Your task to perform on an android device: toggle javascript in the chrome app Image 0: 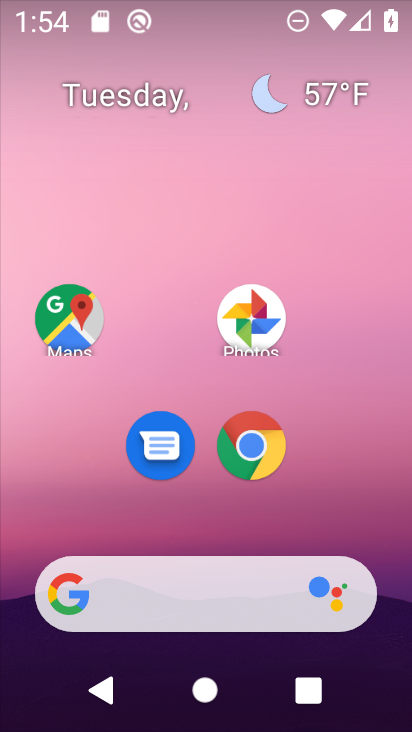
Step 0: drag from (370, 557) to (366, 304)
Your task to perform on an android device: toggle javascript in the chrome app Image 1: 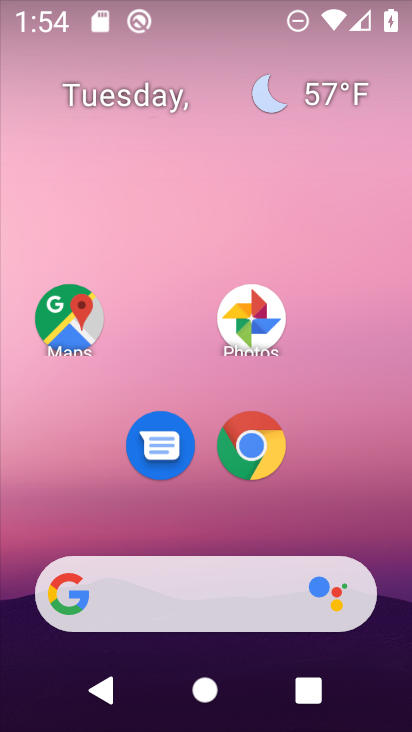
Step 1: drag from (388, 544) to (398, 290)
Your task to perform on an android device: toggle javascript in the chrome app Image 2: 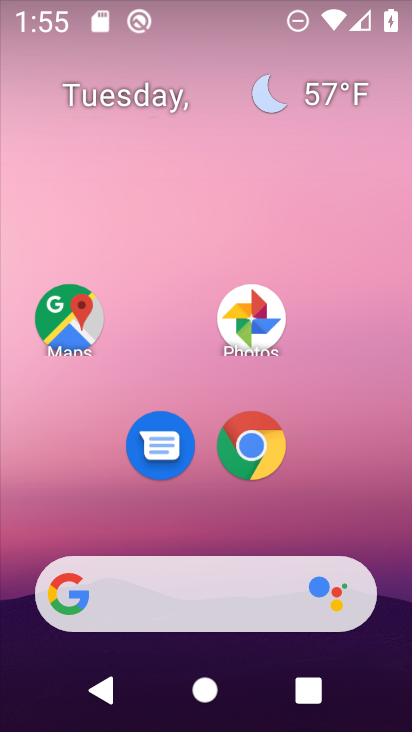
Step 2: drag from (395, 546) to (377, 307)
Your task to perform on an android device: toggle javascript in the chrome app Image 3: 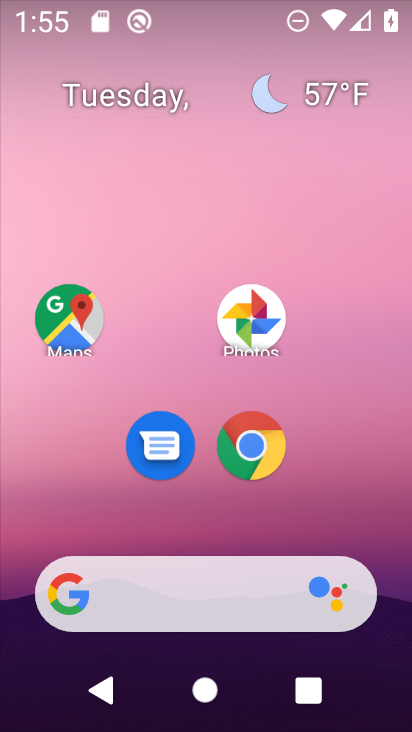
Step 3: drag from (384, 508) to (365, 189)
Your task to perform on an android device: toggle javascript in the chrome app Image 4: 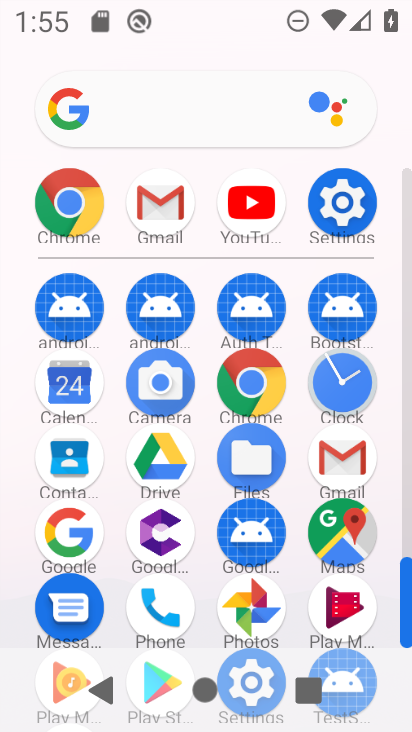
Step 4: click (271, 392)
Your task to perform on an android device: toggle javascript in the chrome app Image 5: 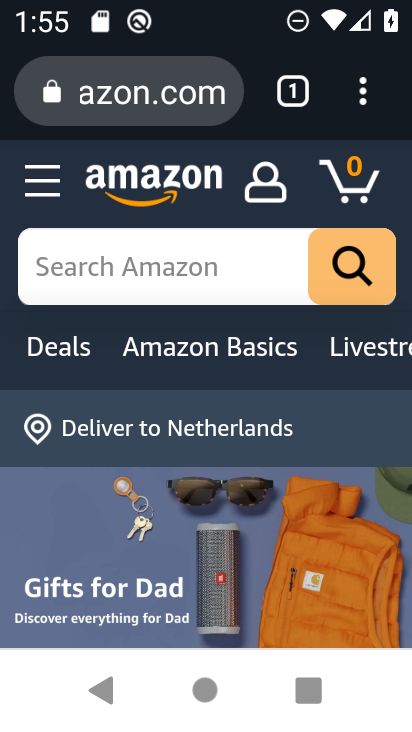
Step 5: click (366, 102)
Your task to perform on an android device: toggle javascript in the chrome app Image 6: 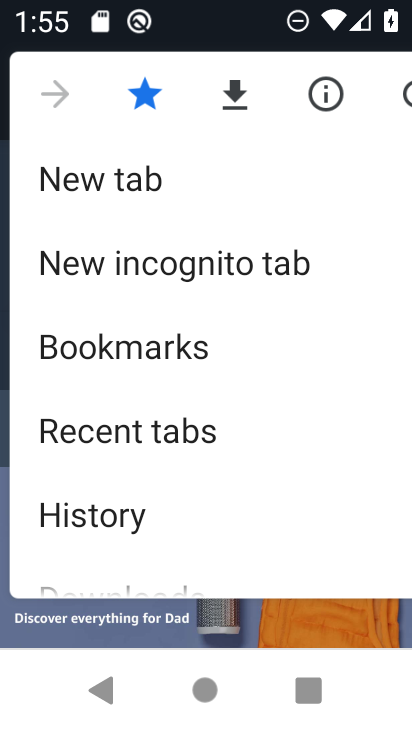
Step 6: drag from (336, 486) to (341, 365)
Your task to perform on an android device: toggle javascript in the chrome app Image 7: 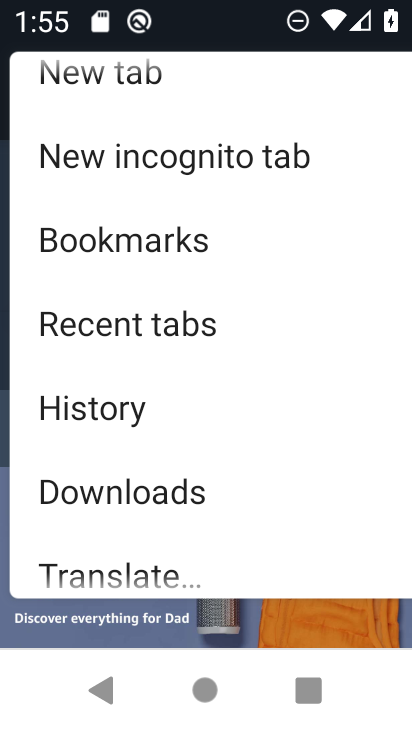
Step 7: drag from (317, 528) to (310, 415)
Your task to perform on an android device: toggle javascript in the chrome app Image 8: 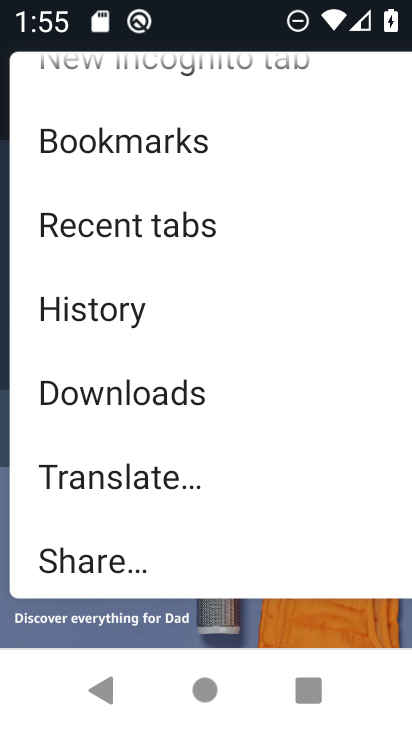
Step 8: drag from (314, 537) to (324, 403)
Your task to perform on an android device: toggle javascript in the chrome app Image 9: 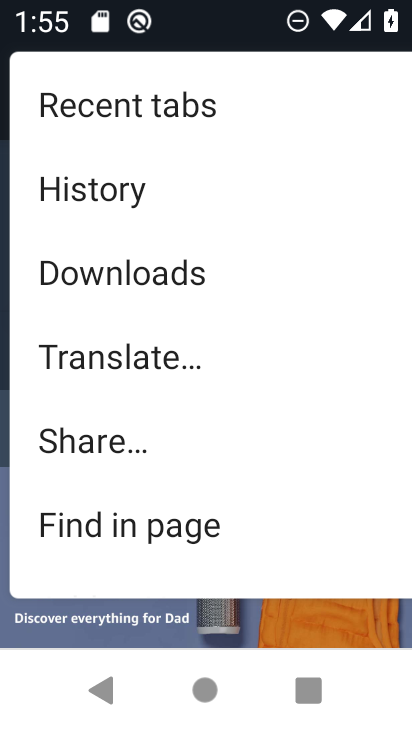
Step 9: drag from (304, 527) to (309, 346)
Your task to perform on an android device: toggle javascript in the chrome app Image 10: 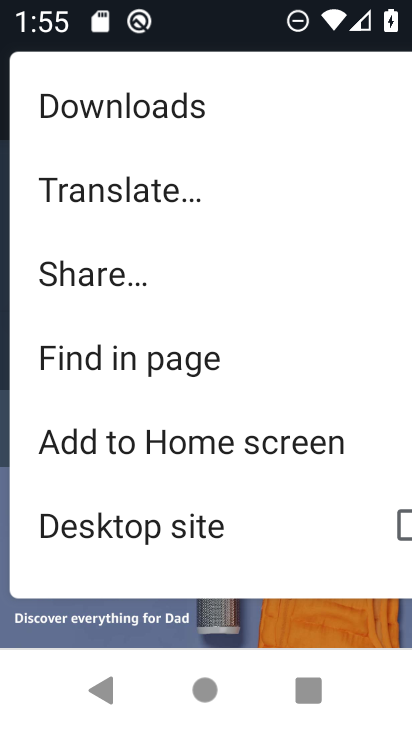
Step 10: drag from (311, 549) to (317, 380)
Your task to perform on an android device: toggle javascript in the chrome app Image 11: 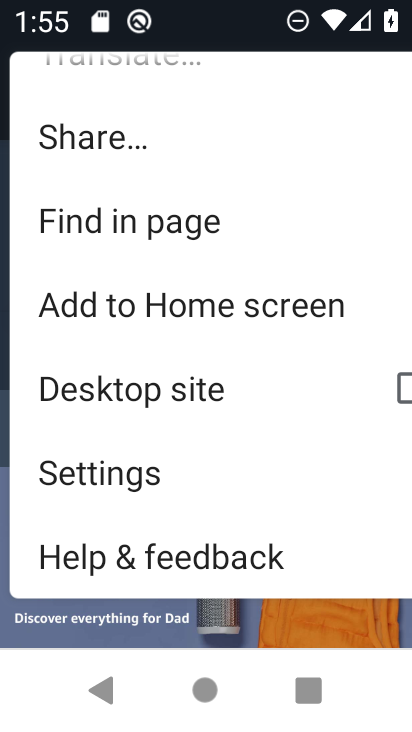
Step 11: click (158, 482)
Your task to perform on an android device: toggle javascript in the chrome app Image 12: 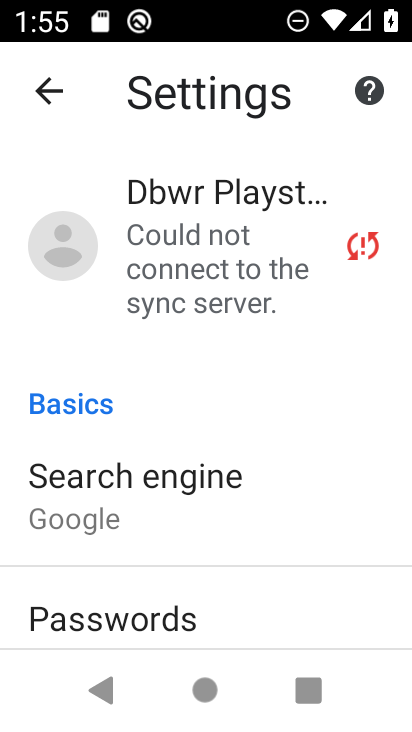
Step 12: drag from (337, 591) to (346, 461)
Your task to perform on an android device: toggle javascript in the chrome app Image 13: 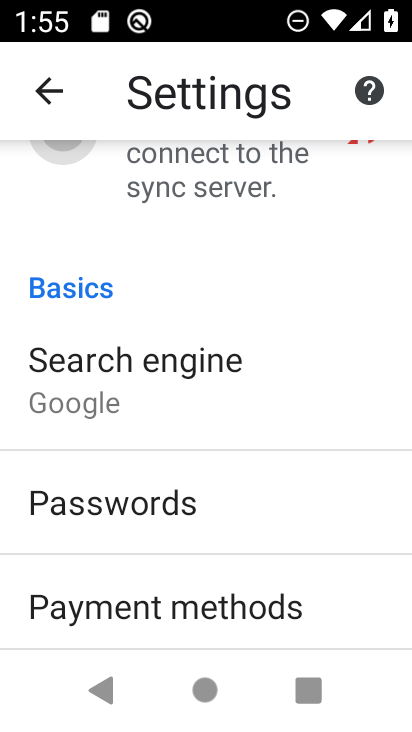
Step 13: drag from (341, 550) to (345, 433)
Your task to perform on an android device: toggle javascript in the chrome app Image 14: 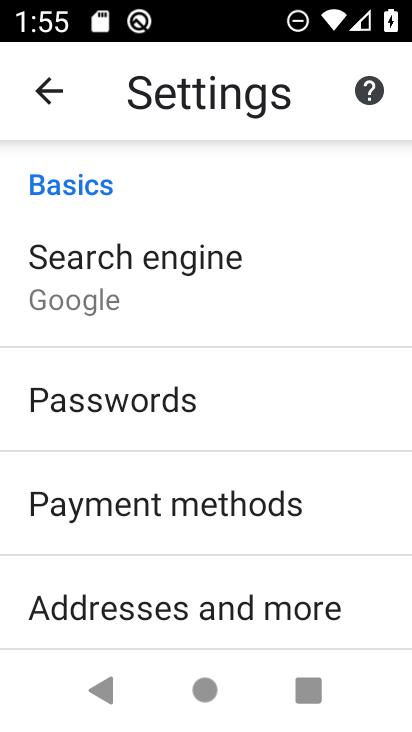
Step 14: drag from (350, 589) to (354, 487)
Your task to perform on an android device: toggle javascript in the chrome app Image 15: 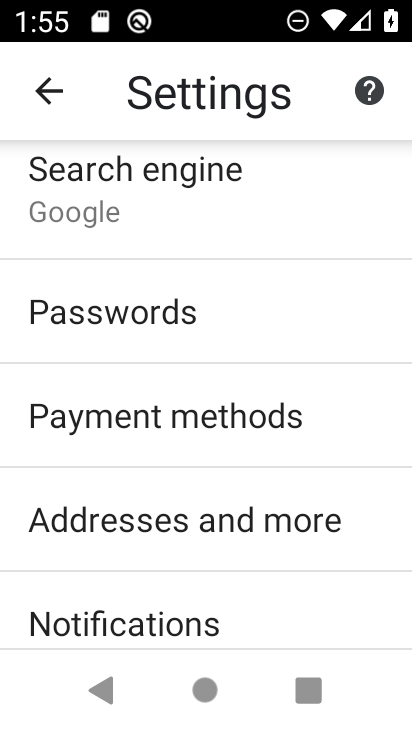
Step 15: drag from (362, 608) to (365, 457)
Your task to perform on an android device: toggle javascript in the chrome app Image 16: 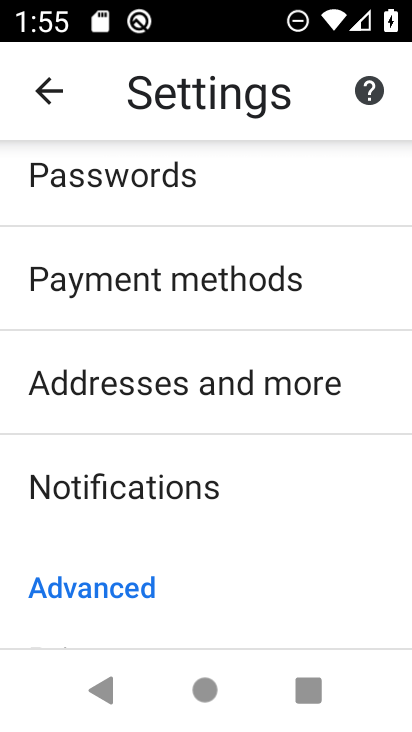
Step 16: drag from (365, 590) to (369, 452)
Your task to perform on an android device: toggle javascript in the chrome app Image 17: 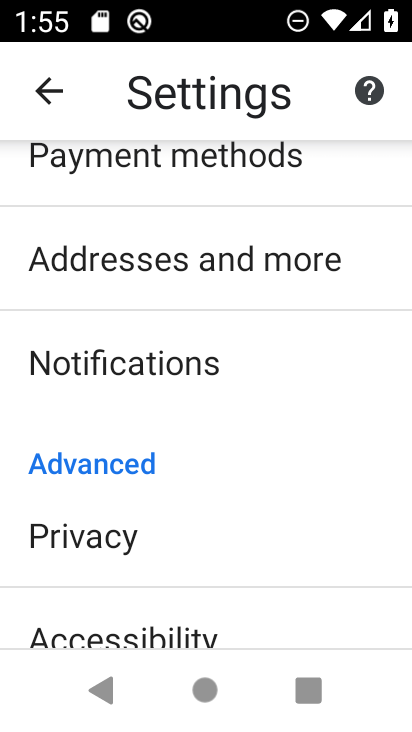
Step 17: drag from (352, 626) to (357, 497)
Your task to perform on an android device: toggle javascript in the chrome app Image 18: 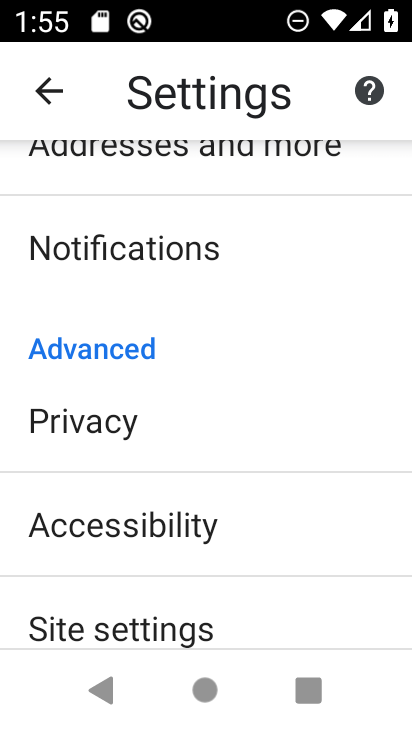
Step 18: drag from (363, 619) to (370, 491)
Your task to perform on an android device: toggle javascript in the chrome app Image 19: 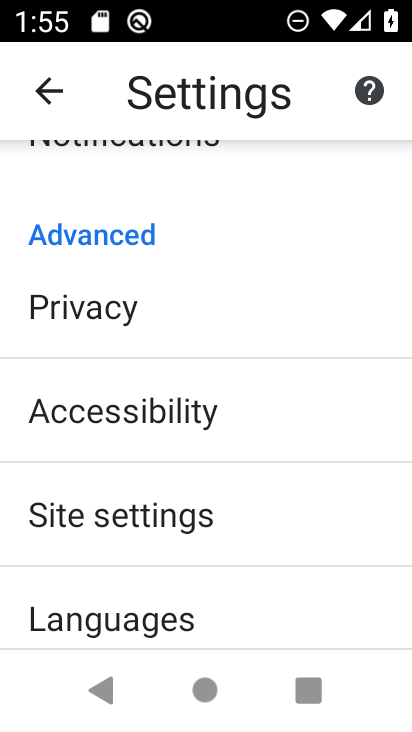
Step 19: drag from (363, 614) to (365, 508)
Your task to perform on an android device: toggle javascript in the chrome app Image 20: 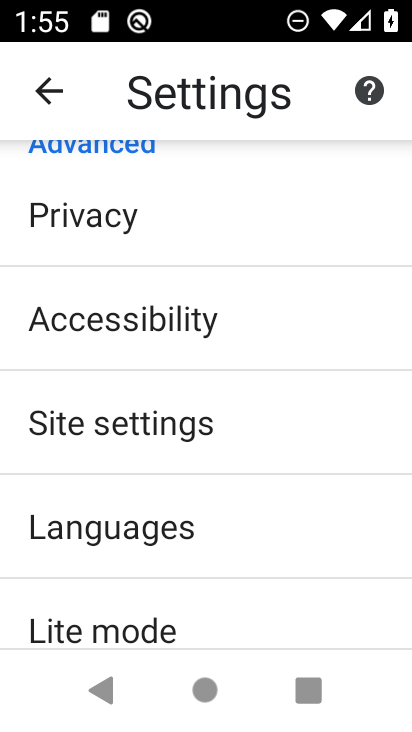
Step 20: click (350, 457)
Your task to perform on an android device: toggle javascript in the chrome app Image 21: 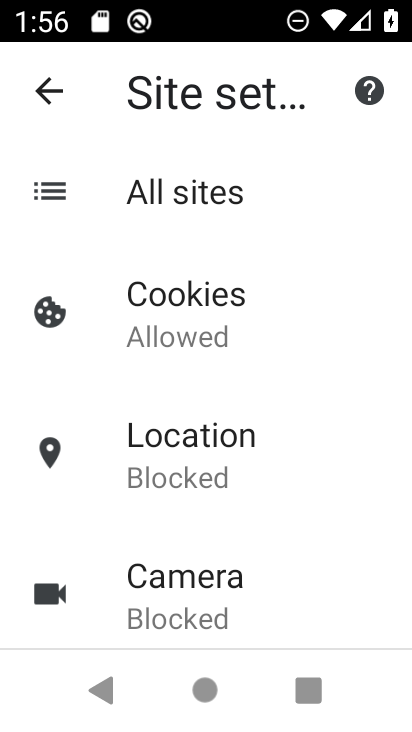
Step 21: drag from (335, 575) to (352, 453)
Your task to perform on an android device: toggle javascript in the chrome app Image 22: 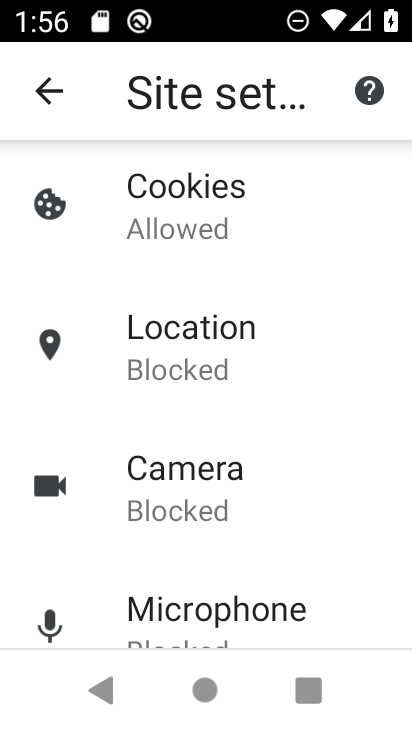
Step 22: drag from (355, 597) to (360, 469)
Your task to perform on an android device: toggle javascript in the chrome app Image 23: 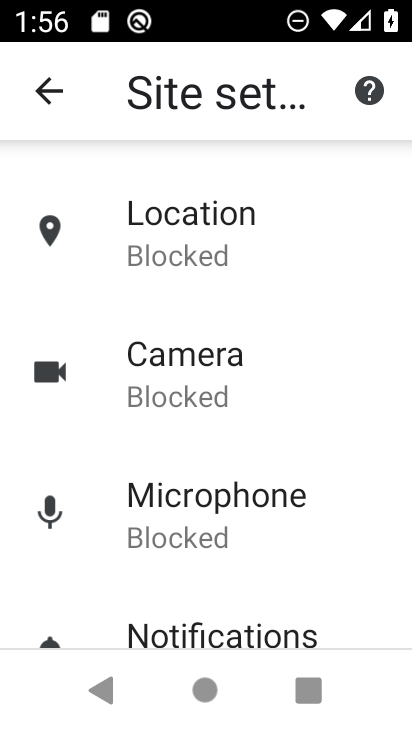
Step 23: drag from (356, 585) to (354, 423)
Your task to perform on an android device: toggle javascript in the chrome app Image 24: 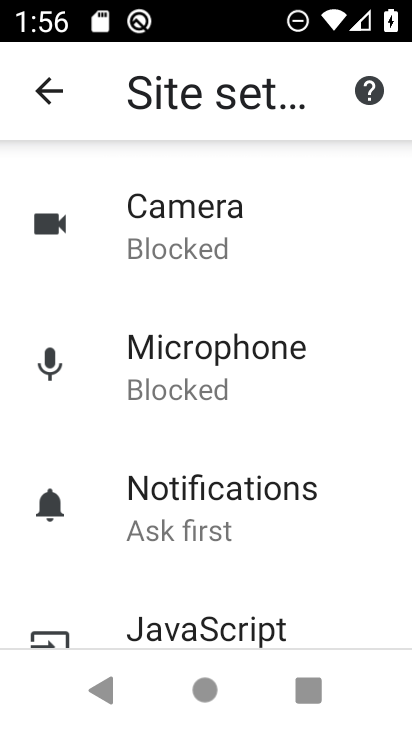
Step 24: drag from (352, 596) to (357, 452)
Your task to perform on an android device: toggle javascript in the chrome app Image 25: 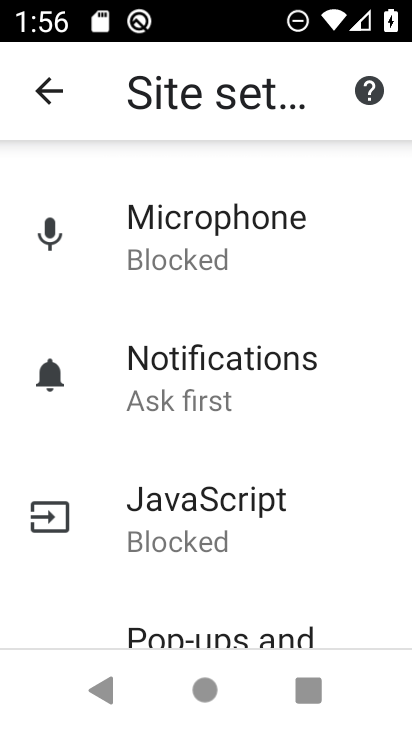
Step 25: click (281, 521)
Your task to perform on an android device: toggle javascript in the chrome app Image 26: 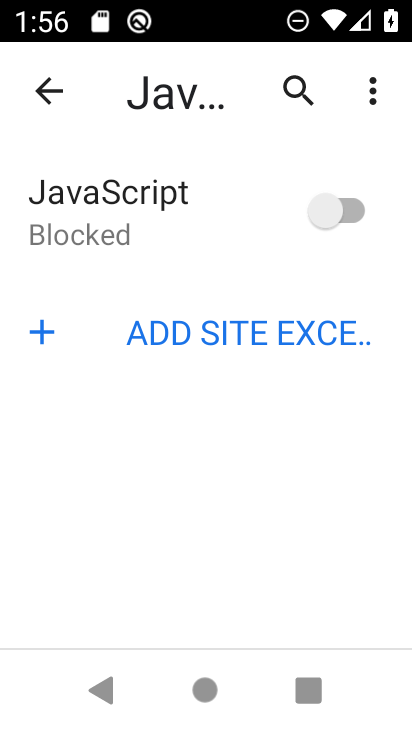
Step 26: click (344, 219)
Your task to perform on an android device: toggle javascript in the chrome app Image 27: 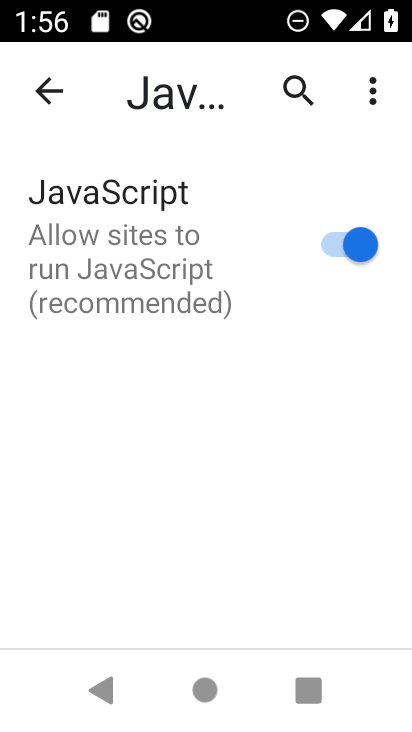
Step 27: task complete